Your task to perform on an android device: open app "Lyft - Rideshare, Bikes, Scooters & Transit" (install if not already installed) Image 0: 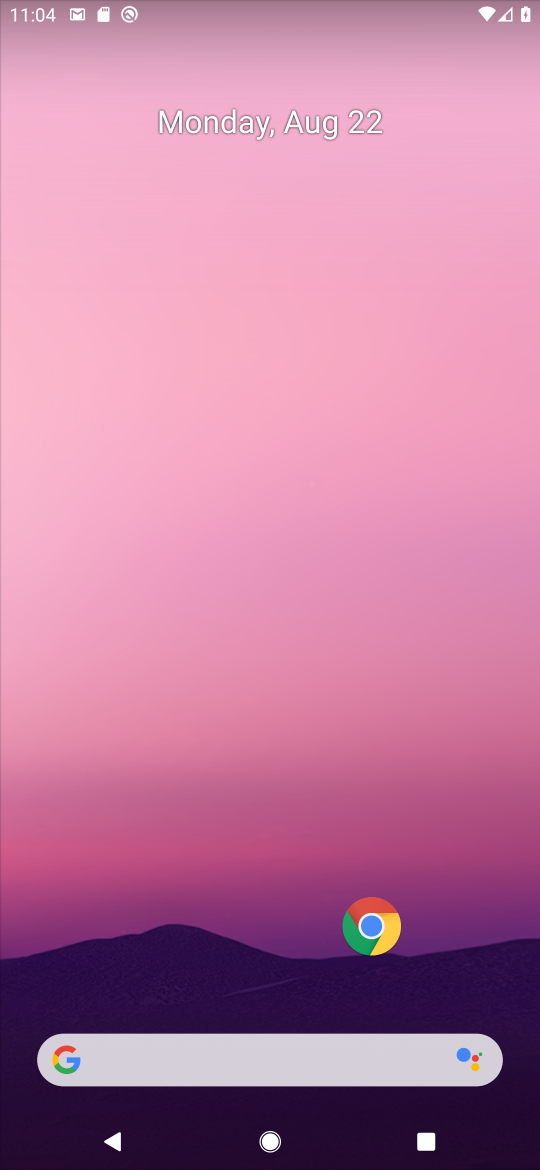
Step 0: drag from (218, 749) to (322, 9)
Your task to perform on an android device: open app "Lyft - Rideshare, Bikes, Scooters & Transit" (install if not already installed) Image 1: 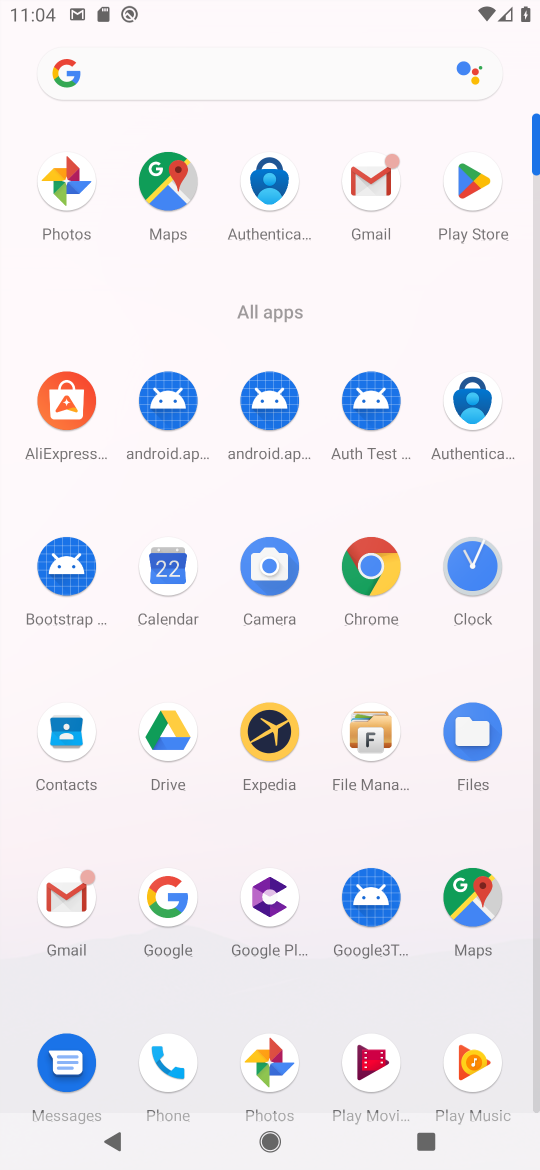
Step 1: click (456, 178)
Your task to perform on an android device: open app "Lyft - Rideshare, Bikes, Scooters & Transit" (install if not already installed) Image 2: 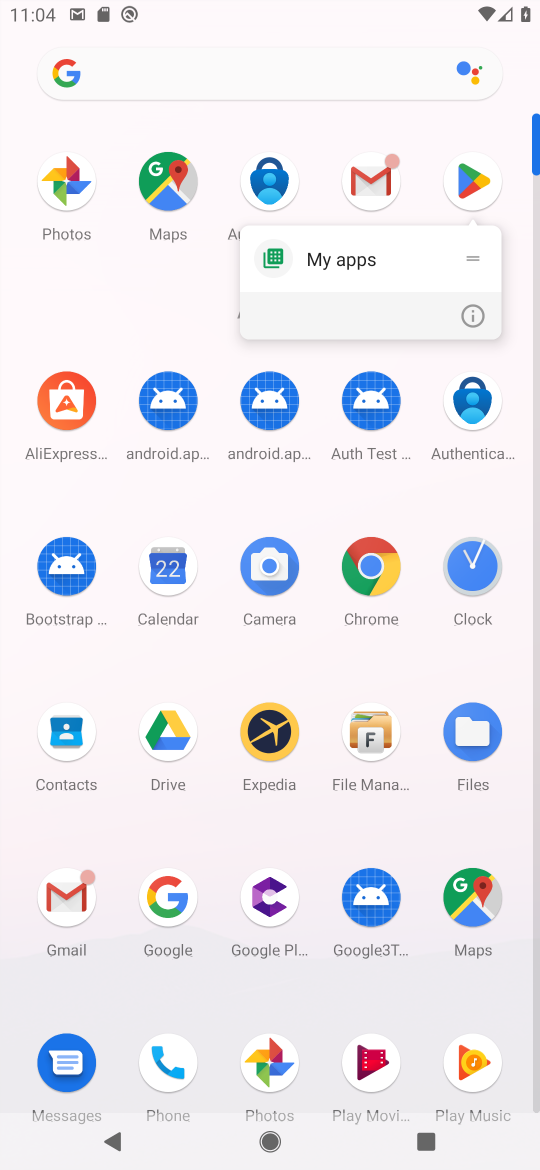
Step 2: click (456, 177)
Your task to perform on an android device: open app "Lyft - Rideshare, Bikes, Scooters & Transit" (install if not already installed) Image 3: 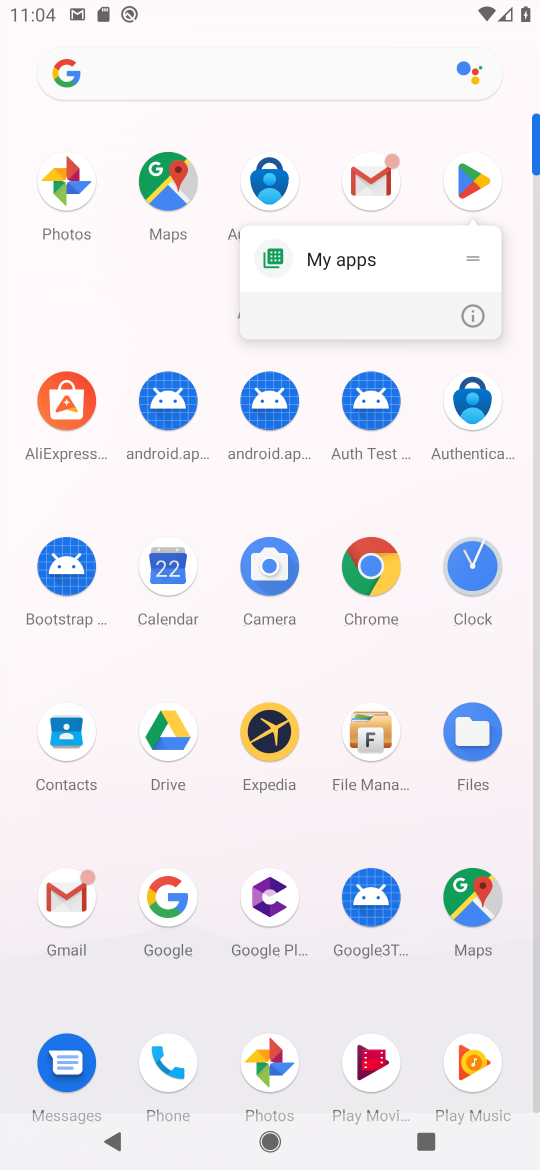
Step 3: click (466, 188)
Your task to perform on an android device: open app "Lyft - Rideshare, Bikes, Scooters & Transit" (install if not already installed) Image 4: 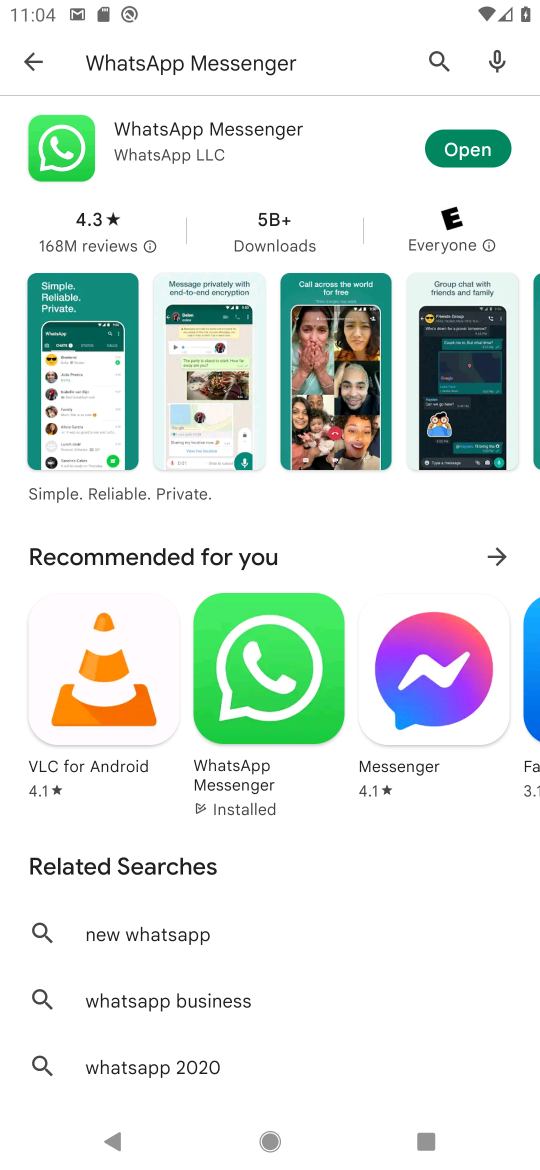
Step 4: press back button
Your task to perform on an android device: open app "Lyft - Rideshare, Bikes, Scooters & Transit" (install if not already installed) Image 5: 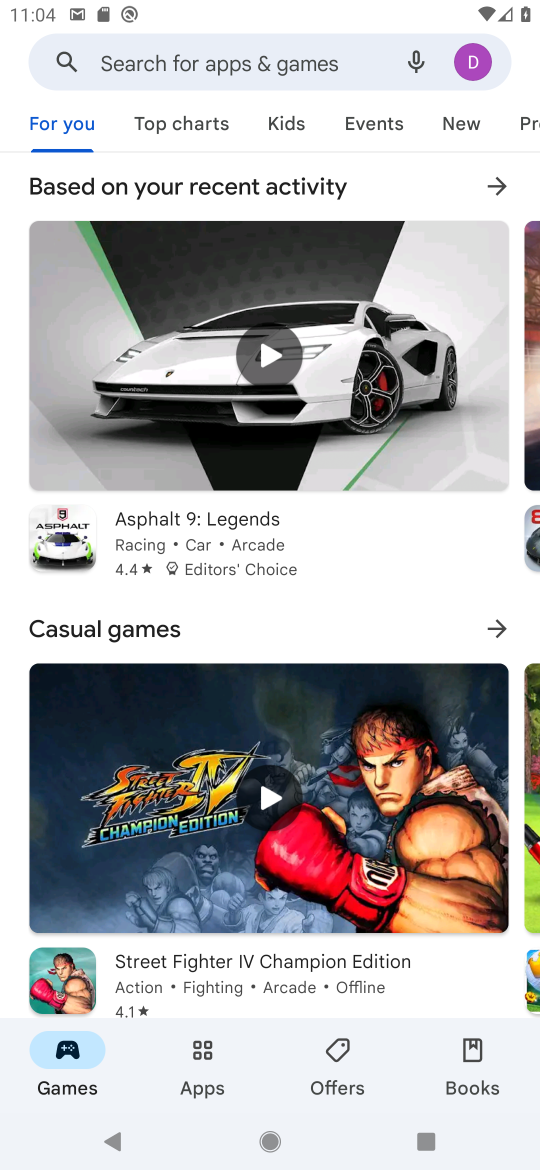
Step 5: click (206, 43)
Your task to perform on an android device: open app "Lyft - Rideshare, Bikes, Scooters & Transit" (install if not already installed) Image 6: 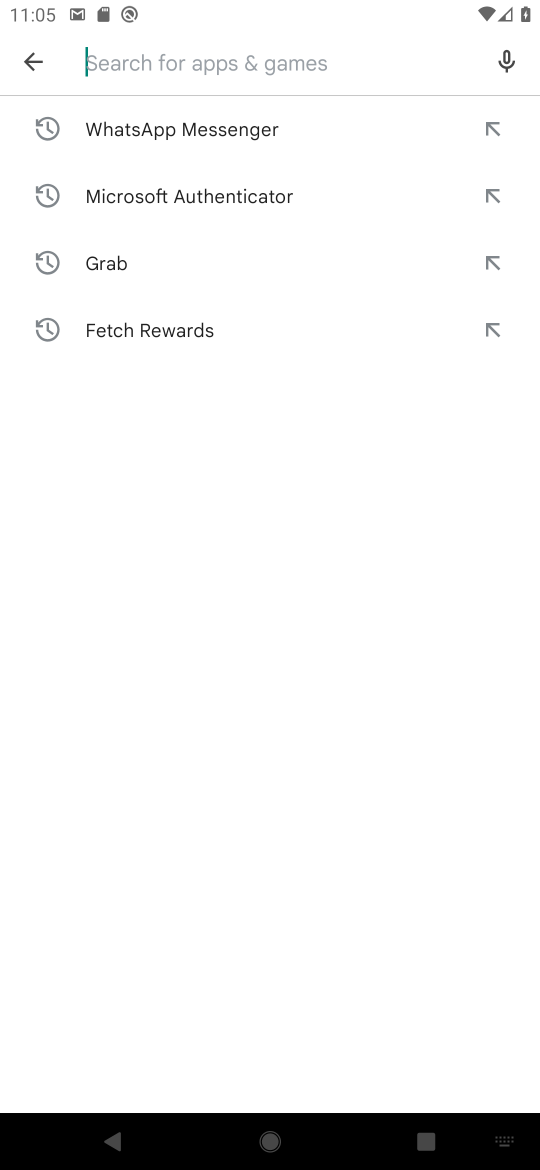
Step 6: type "Lyft - Rideshare, Bikes, Scooters & Transit"
Your task to perform on an android device: open app "Lyft - Rideshare, Bikes, Scooters & Transit" (install if not already installed) Image 7: 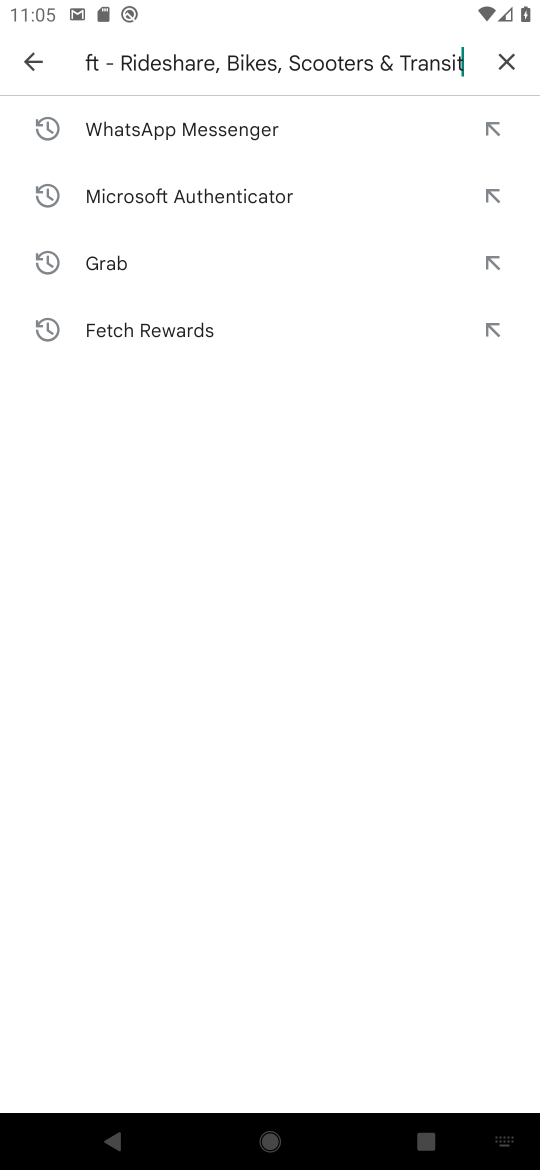
Step 7: press enter
Your task to perform on an android device: open app "Lyft - Rideshare, Bikes, Scooters & Transit" (install if not already installed) Image 8: 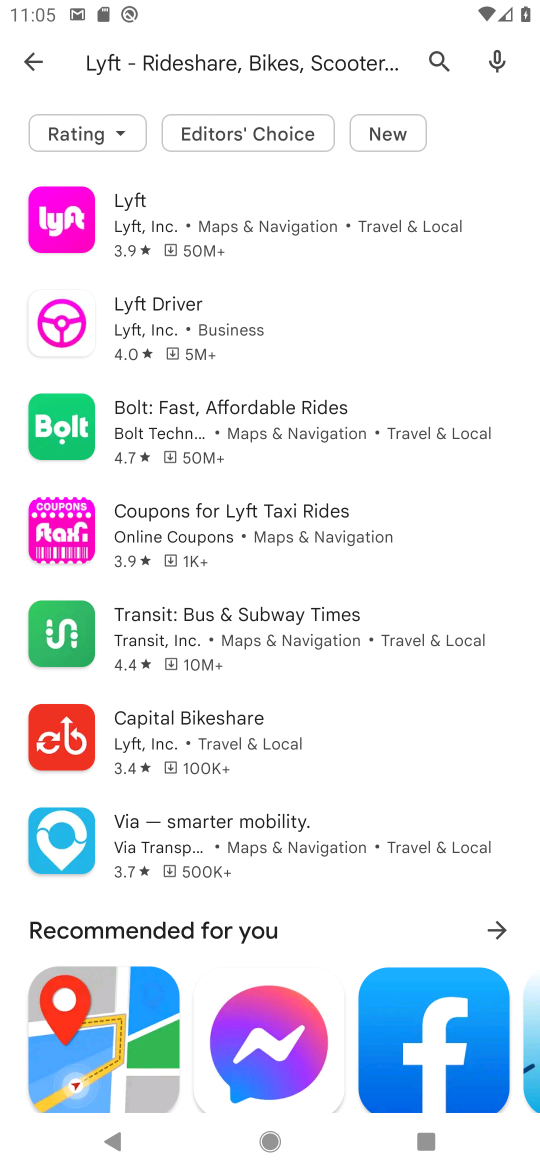
Step 8: click (203, 242)
Your task to perform on an android device: open app "Lyft - Rideshare, Bikes, Scooters & Transit" (install if not already installed) Image 9: 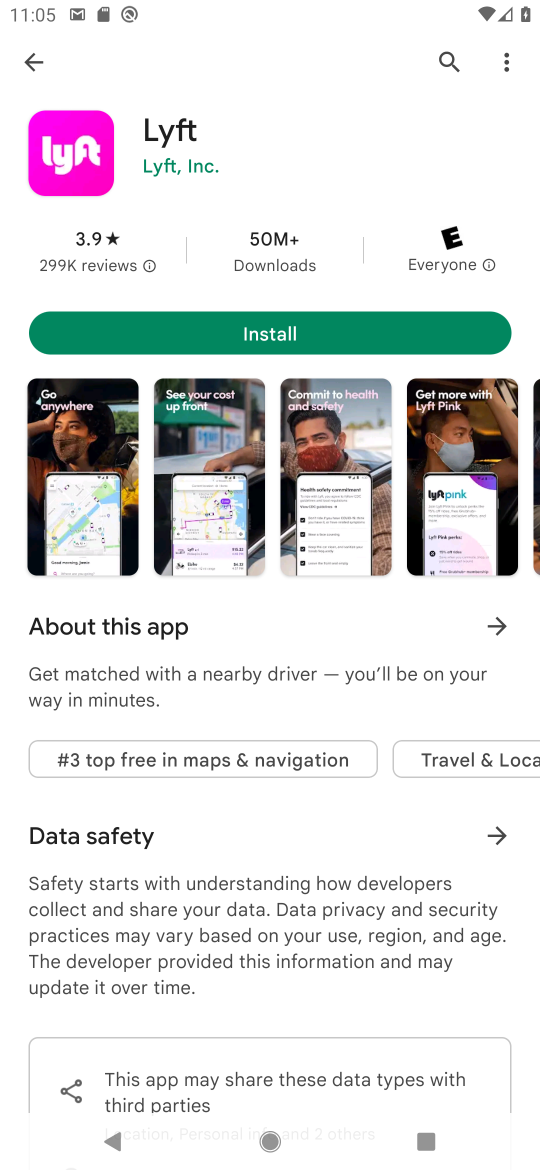
Step 9: click (263, 327)
Your task to perform on an android device: open app "Lyft - Rideshare, Bikes, Scooters & Transit" (install if not already installed) Image 10: 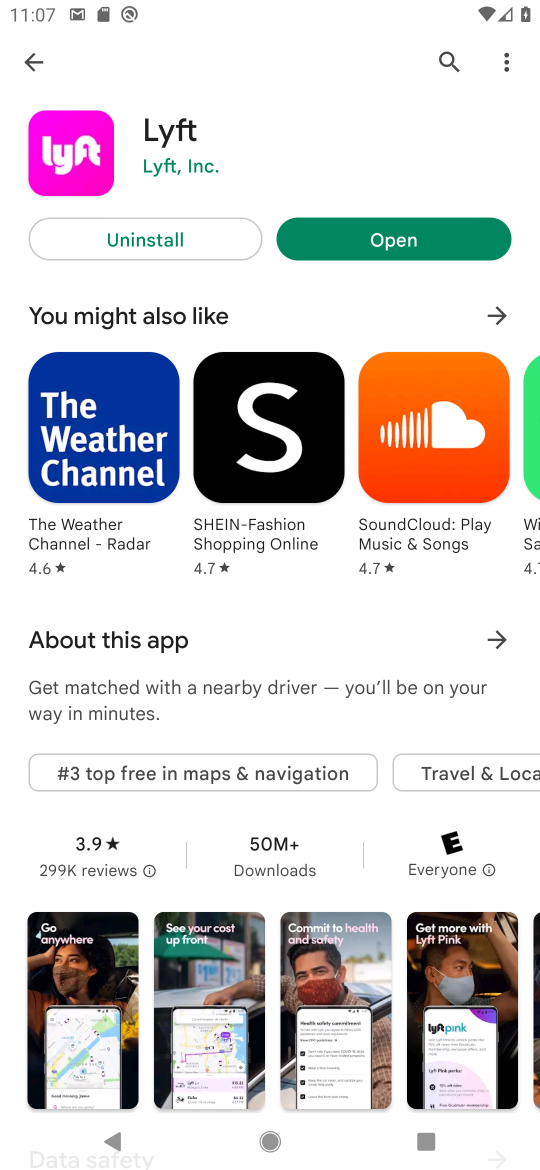
Step 10: task complete